Your task to perform on an android device: open app "Upside-Cash back on gas & food" (install if not already installed) Image 0: 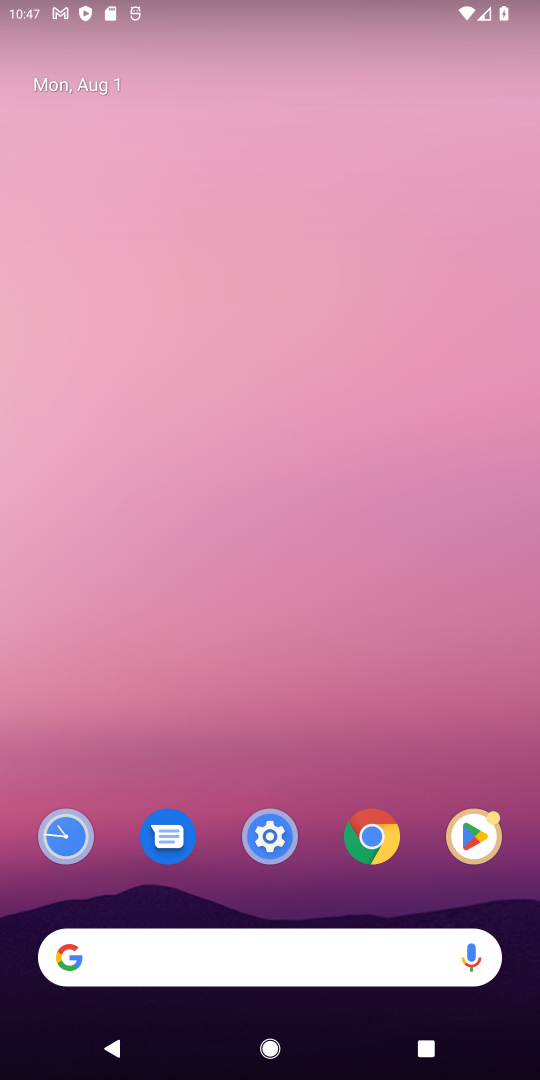
Step 0: click (477, 834)
Your task to perform on an android device: open app "Upside-Cash back on gas & food" (install if not already installed) Image 1: 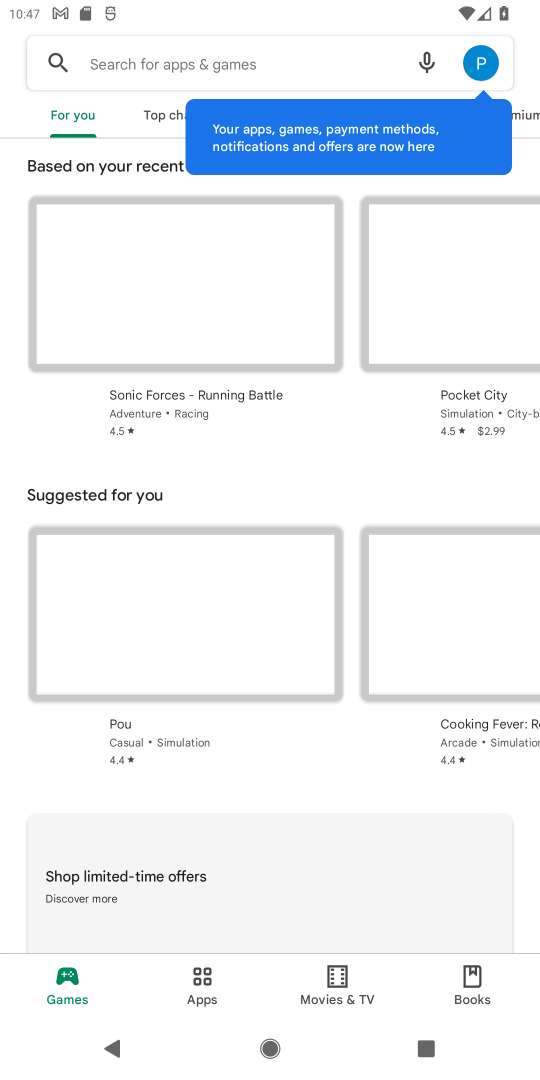
Step 1: click (229, 56)
Your task to perform on an android device: open app "Upside-Cash back on gas & food" (install if not already installed) Image 2: 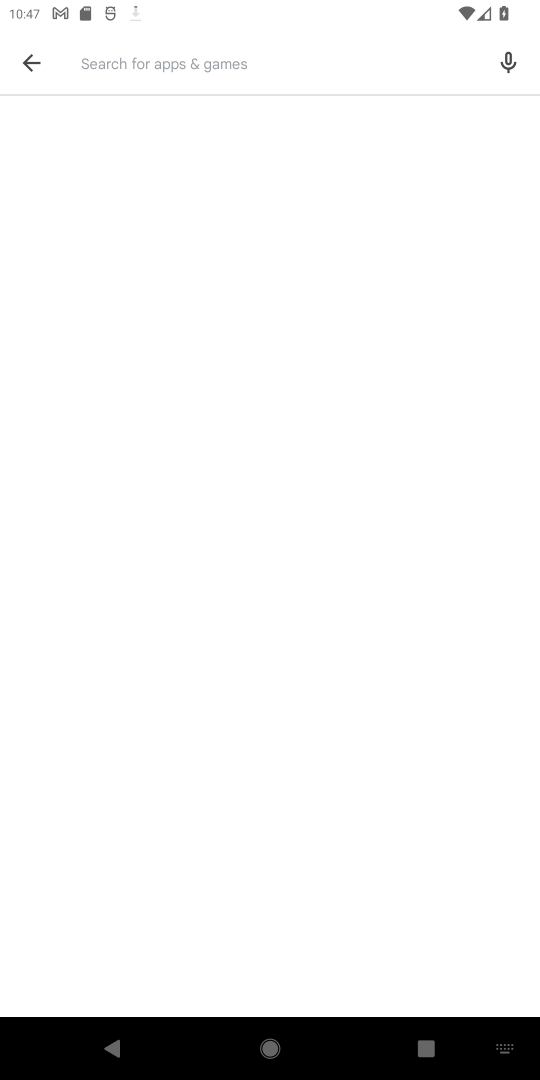
Step 2: type "upside-cash back"
Your task to perform on an android device: open app "Upside-Cash back on gas & food" (install if not already installed) Image 3: 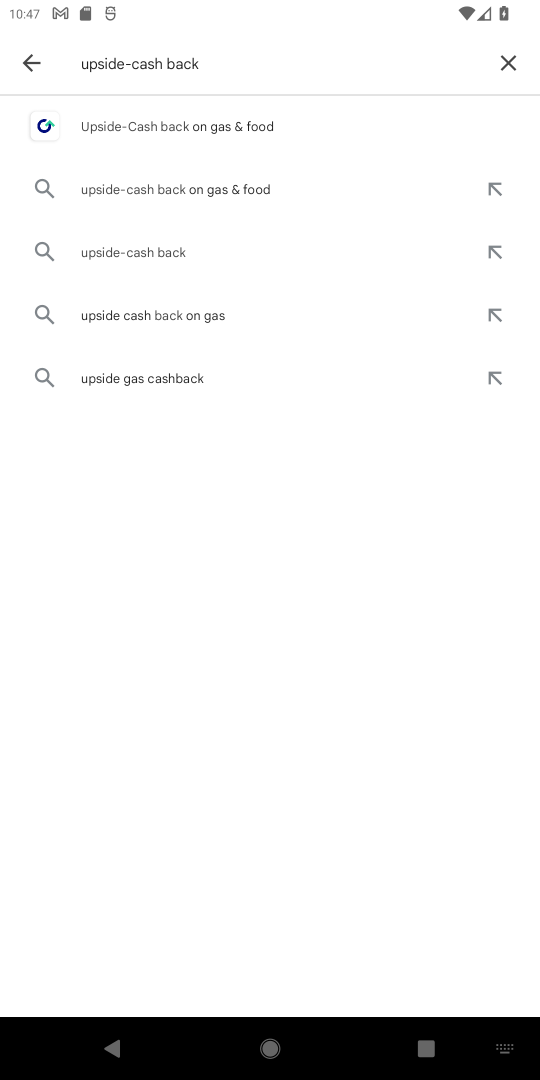
Step 3: click (213, 133)
Your task to perform on an android device: open app "Upside-Cash back on gas & food" (install if not already installed) Image 4: 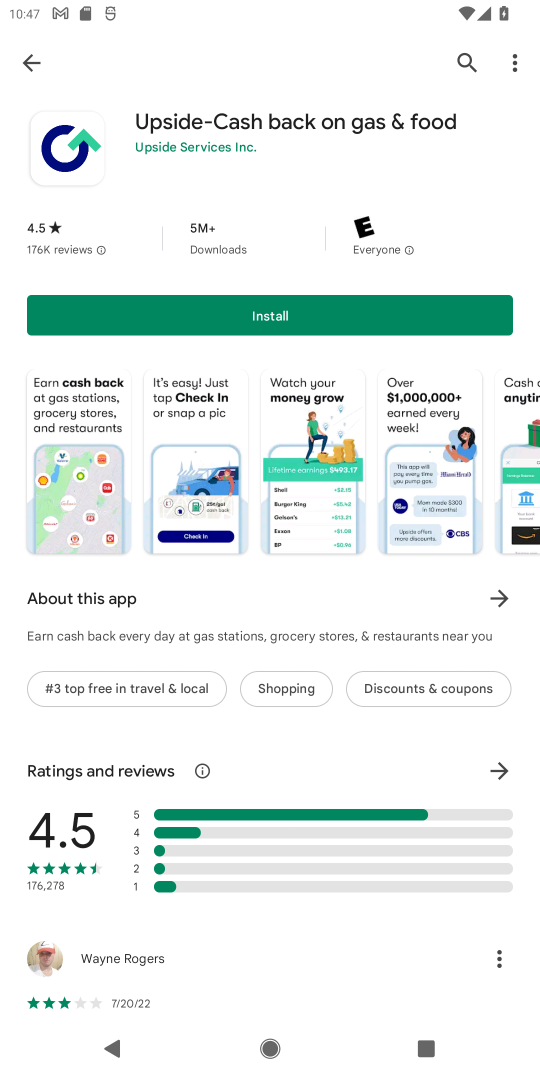
Step 4: click (313, 315)
Your task to perform on an android device: open app "Upside-Cash back on gas & food" (install if not already installed) Image 5: 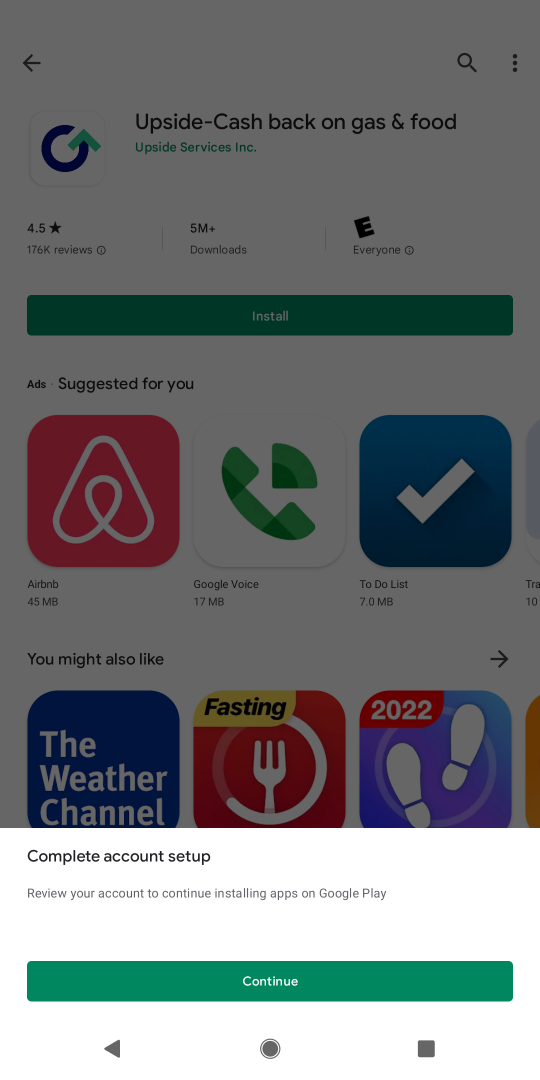
Step 5: click (242, 992)
Your task to perform on an android device: open app "Upside-Cash back on gas & food" (install if not already installed) Image 6: 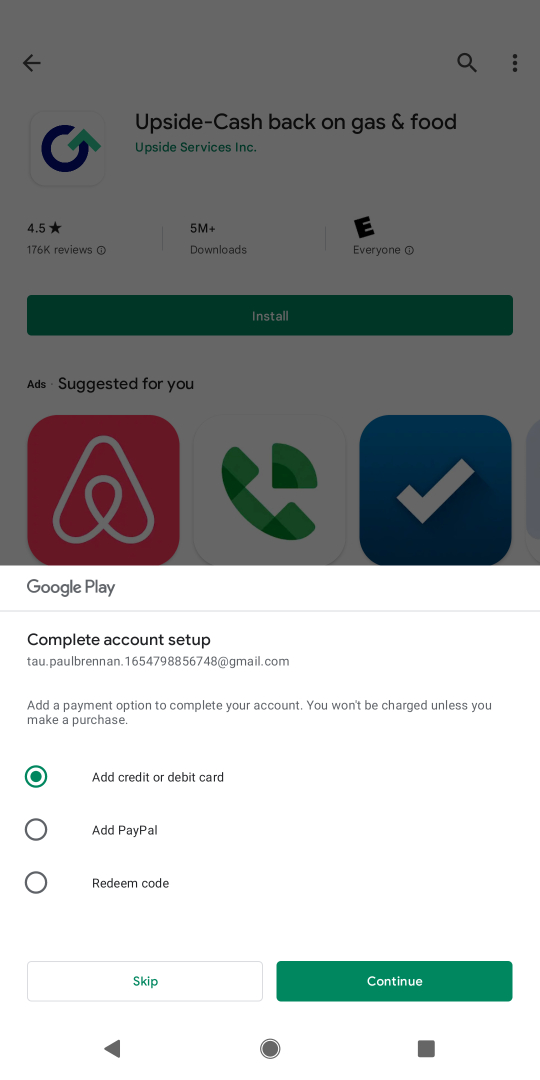
Step 6: click (116, 979)
Your task to perform on an android device: open app "Upside-Cash back on gas & food" (install if not already installed) Image 7: 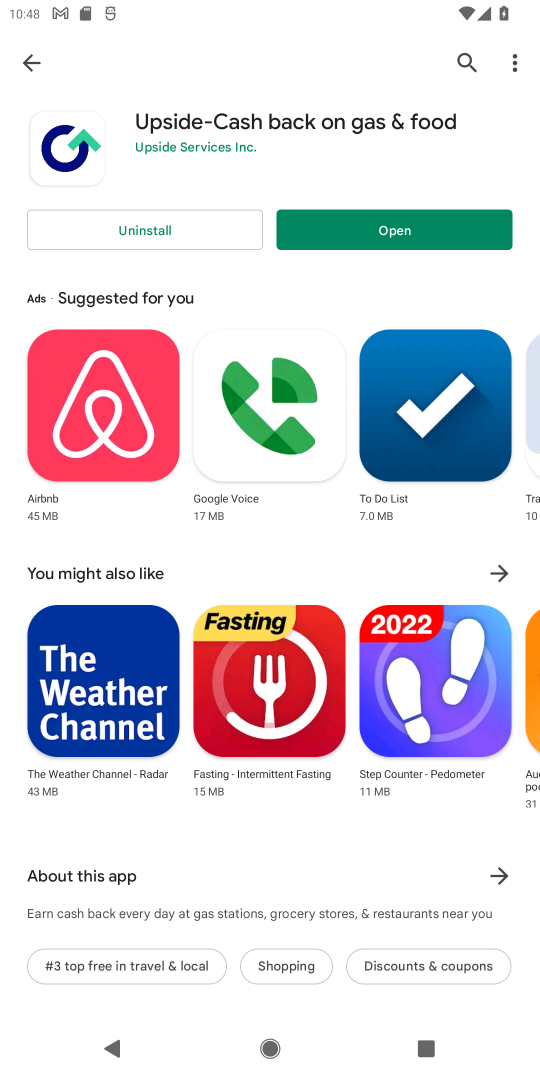
Step 7: click (356, 237)
Your task to perform on an android device: open app "Upside-Cash back on gas & food" (install if not already installed) Image 8: 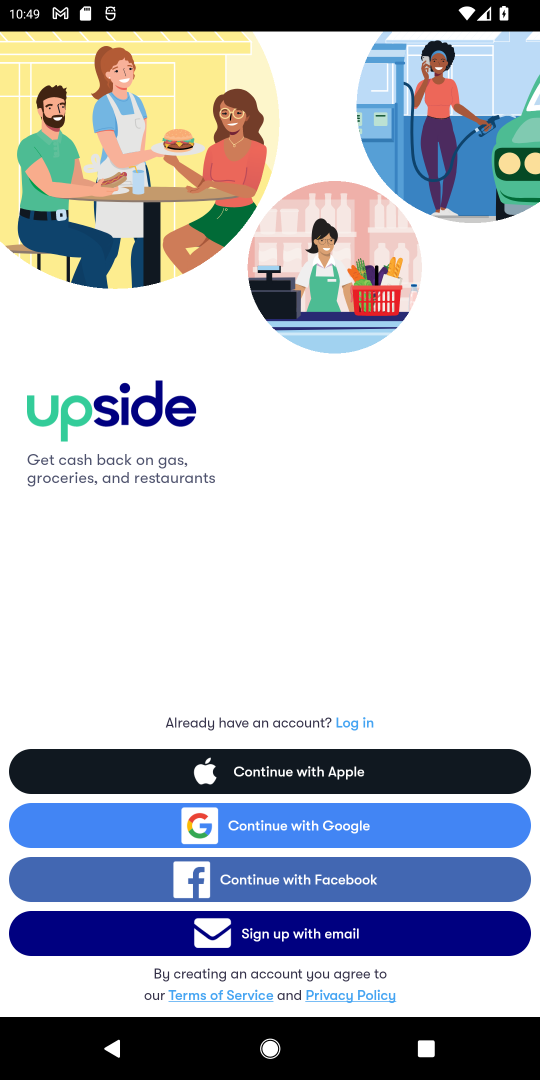
Step 8: task complete